Your task to perform on an android device: change timer sound Image 0: 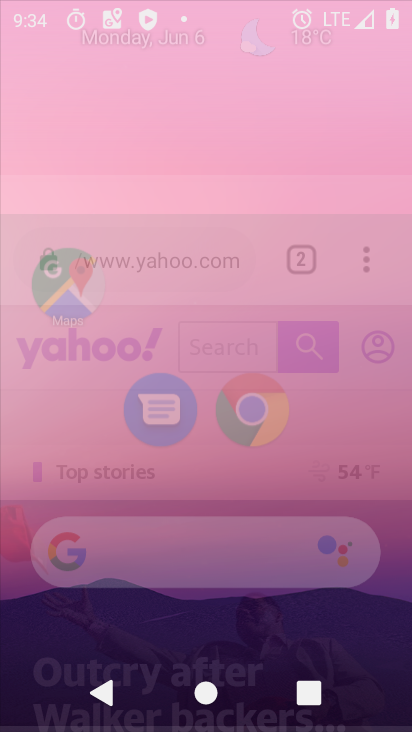
Step 0: click (324, 173)
Your task to perform on an android device: change timer sound Image 1: 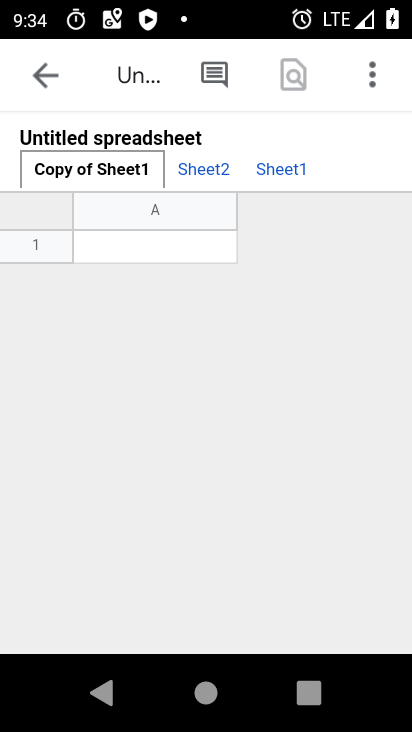
Step 1: press home button
Your task to perform on an android device: change timer sound Image 2: 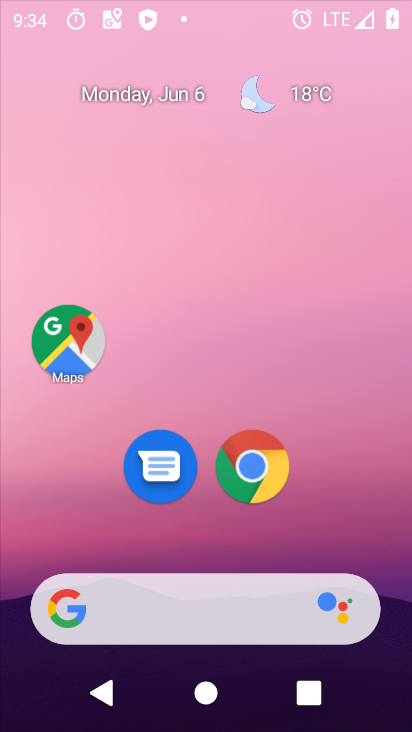
Step 2: drag from (185, 616) to (233, 146)
Your task to perform on an android device: change timer sound Image 3: 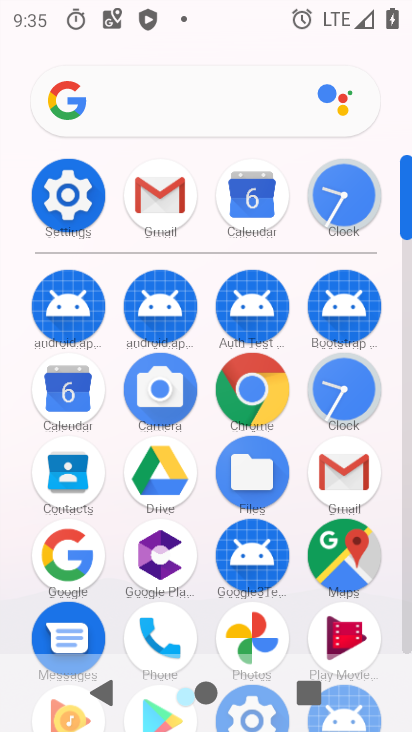
Step 3: click (344, 373)
Your task to perform on an android device: change timer sound Image 4: 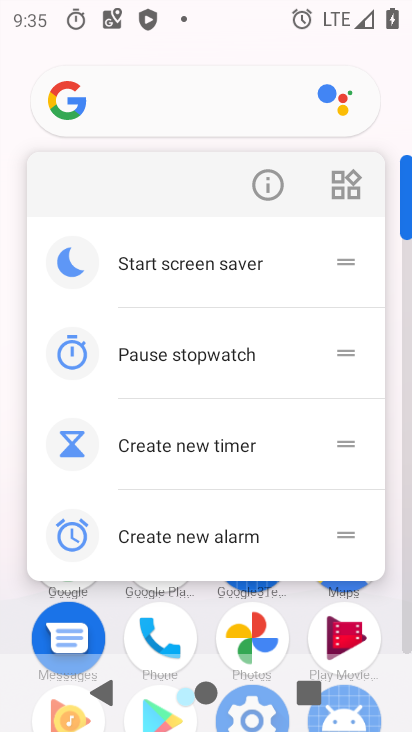
Step 4: click (264, 177)
Your task to perform on an android device: change timer sound Image 5: 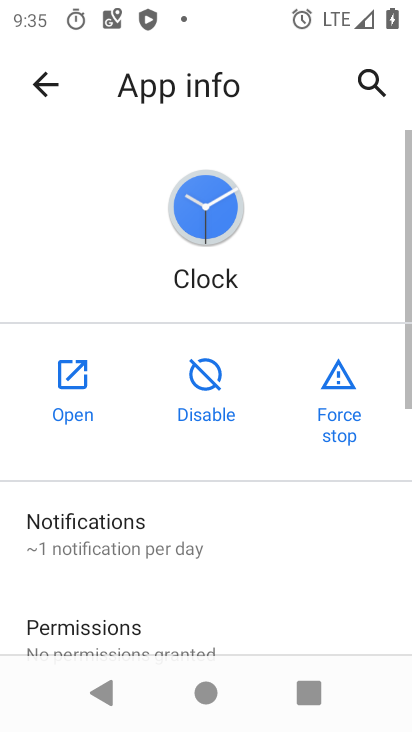
Step 5: click (73, 401)
Your task to perform on an android device: change timer sound Image 6: 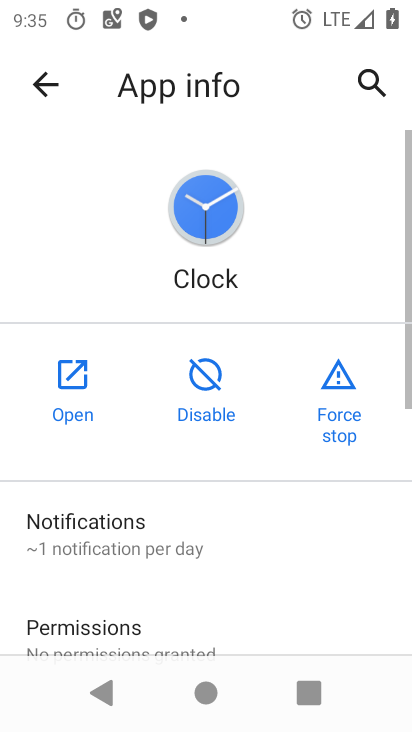
Step 6: click (73, 401)
Your task to perform on an android device: change timer sound Image 7: 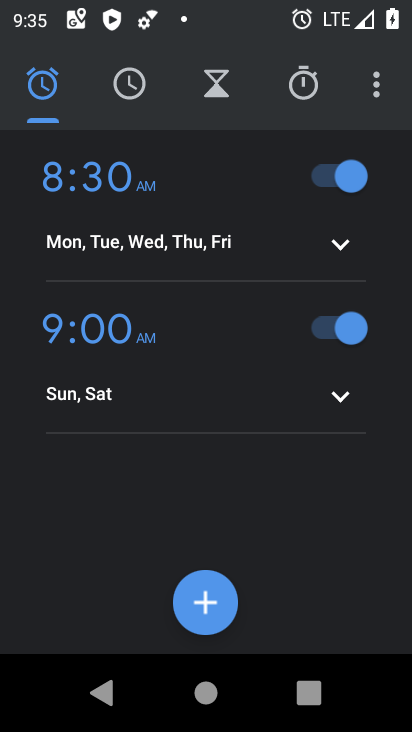
Step 7: click (374, 77)
Your task to perform on an android device: change timer sound Image 8: 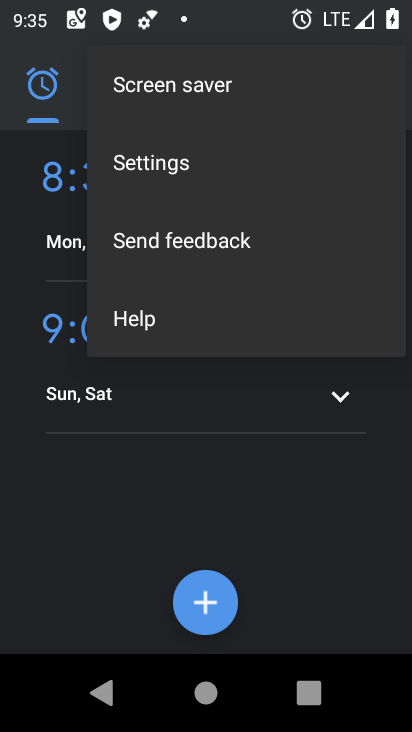
Step 8: click (224, 151)
Your task to perform on an android device: change timer sound Image 9: 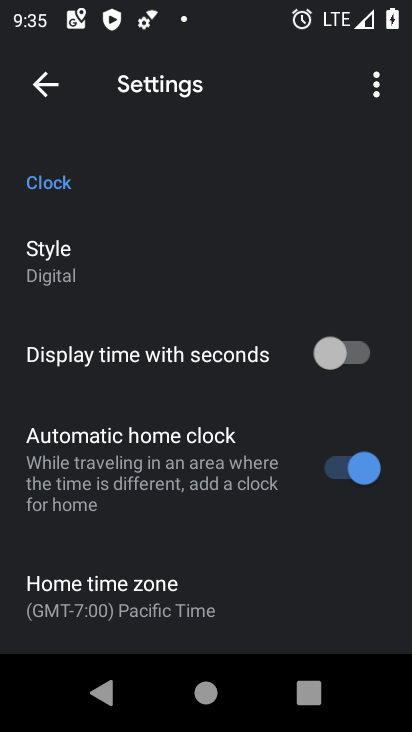
Step 9: drag from (146, 474) to (214, 242)
Your task to perform on an android device: change timer sound Image 10: 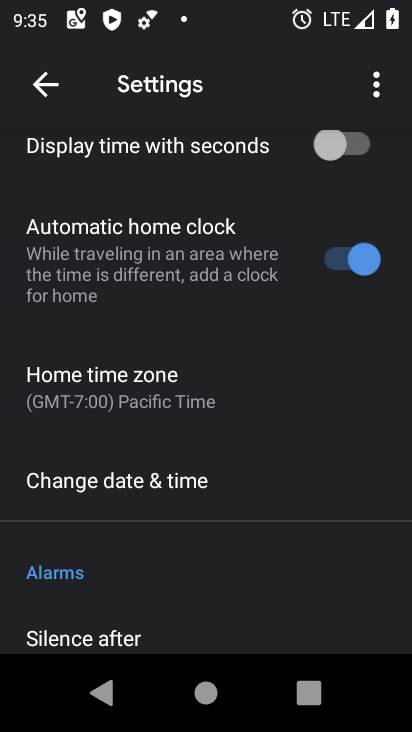
Step 10: drag from (184, 582) to (264, 56)
Your task to perform on an android device: change timer sound Image 11: 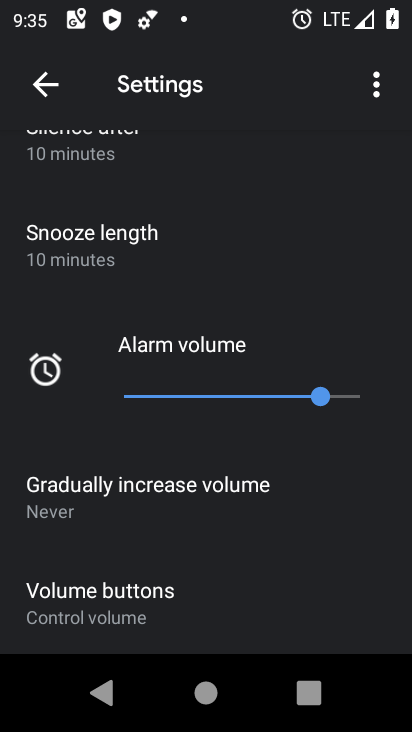
Step 11: drag from (169, 524) to (206, 144)
Your task to perform on an android device: change timer sound Image 12: 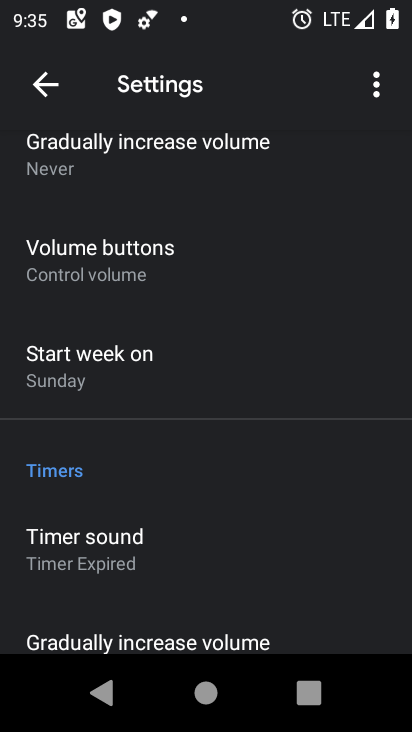
Step 12: click (143, 563)
Your task to perform on an android device: change timer sound Image 13: 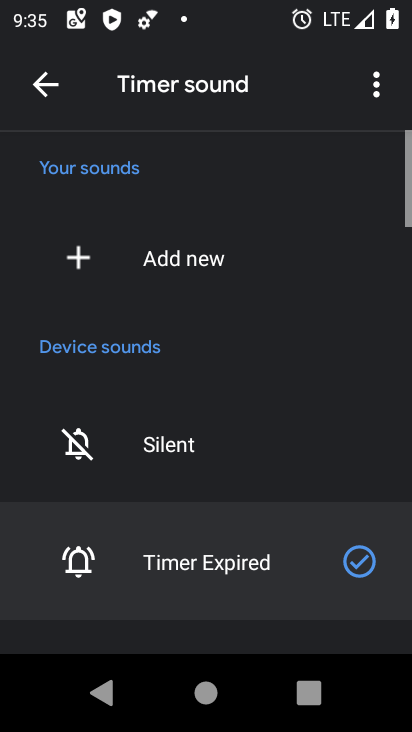
Step 13: drag from (224, 529) to (287, 213)
Your task to perform on an android device: change timer sound Image 14: 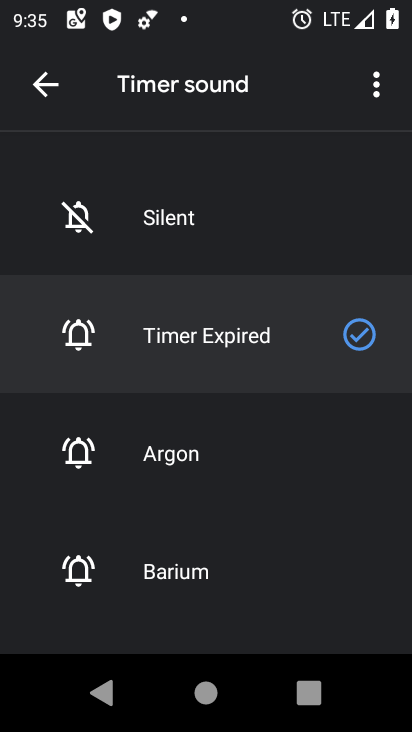
Step 14: click (240, 575)
Your task to perform on an android device: change timer sound Image 15: 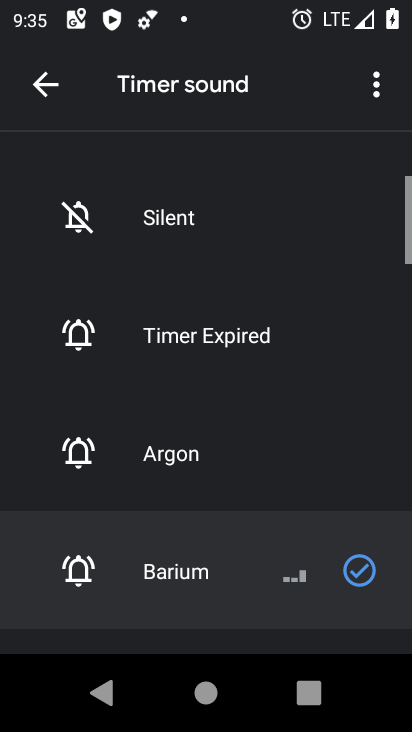
Step 15: task complete